Your task to perform on an android device: open app "Venmo" (install if not already installed), go to login, and select forgot password Image 0: 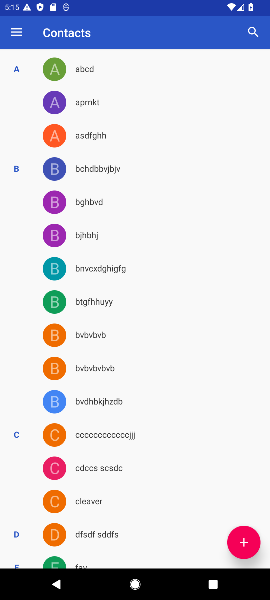
Step 0: press home button
Your task to perform on an android device: open app "Venmo" (install if not already installed), go to login, and select forgot password Image 1: 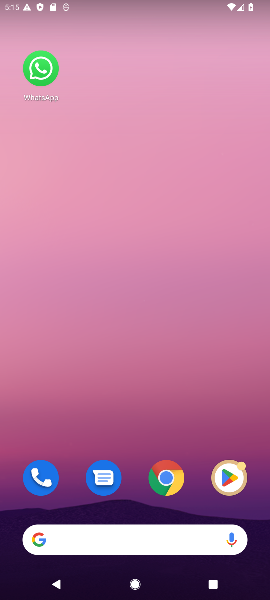
Step 1: drag from (122, 436) to (165, 2)
Your task to perform on an android device: open app "Venmo" (install if not already installed), go to login, and select forgot password Image 2: 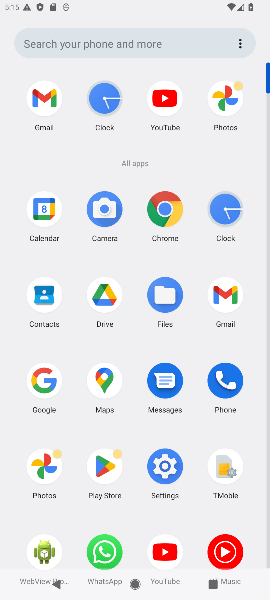
Step 2: click (107, 466)
Your task to perform on an android device: open app "Venmo" (install if not already installed), go to login, and select forgot password Image 3: 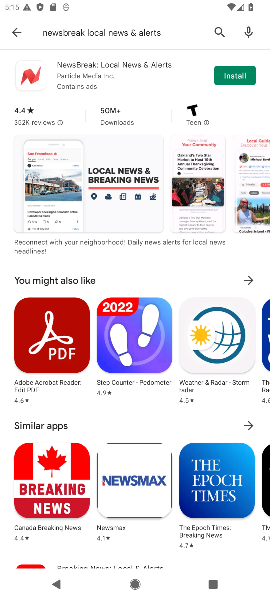
Step 3: click (218, 31)
Your task to perform on an android device: open app "Venmo" (install if not already installed), go to login, and select forgot password Image 4: 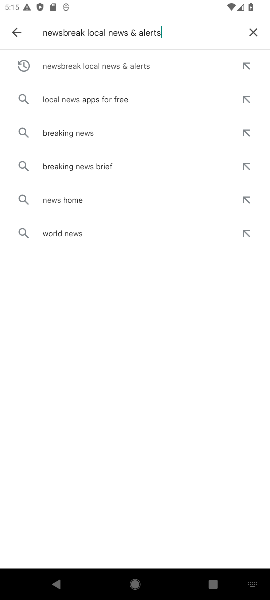
Step 4: click (253, 29)
Your task to perform on an android device: open app "Venmo" (install if not already installed), go to login, and select forgot password Image 5: 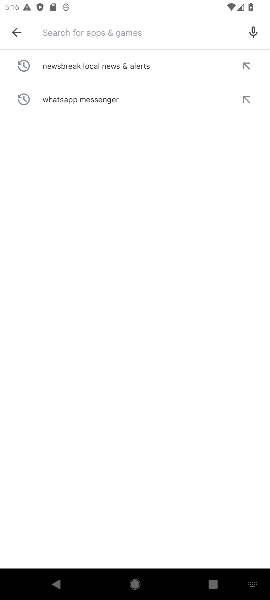
Step 5: type "venmo"
Your task to perform on an android device: open app "Venmo" (install if not already installed), go to login, and select forgot password Image 6: 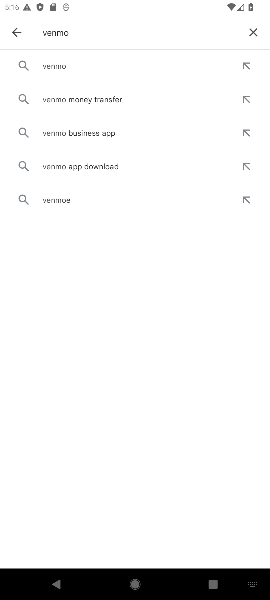
Step 6: click (91, 69)
Your task to perform on an android device: open app "Venmo" (install if not already installed), go to login, and select forgot password Image 7: 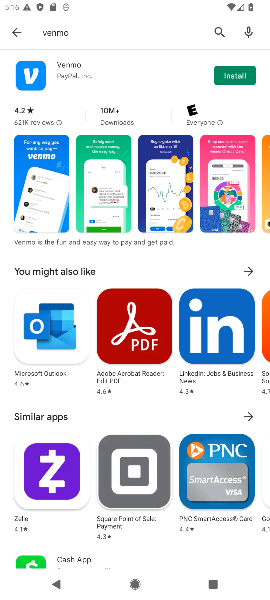
Step 7: click (230, 73)
Your task to perform on an android device: open app "Venmo" (install if not already installed), go to login, and select forgot password Image 8: 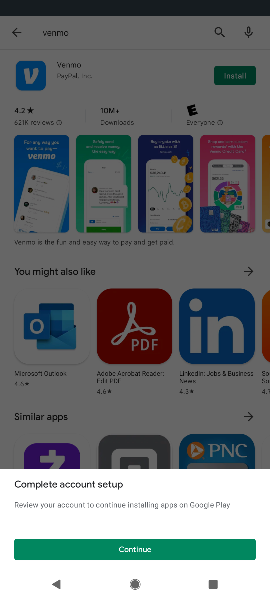
Step 8: click (176, 556)
Your task to perform on an android device: open app "Venmo" (install if not already installed), go to login, and select forgot password Image 9: 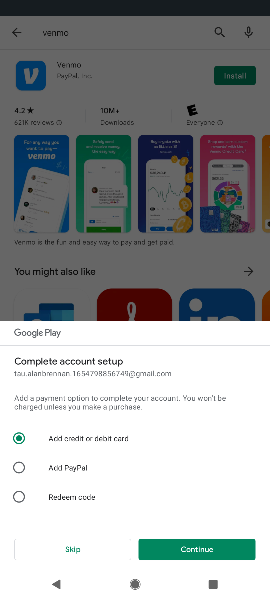
Step 9: click (73, 549)
Your task to perform on an android device: open app "Venmo" (install if not already installed), go to login, and select forgot password Image 10: 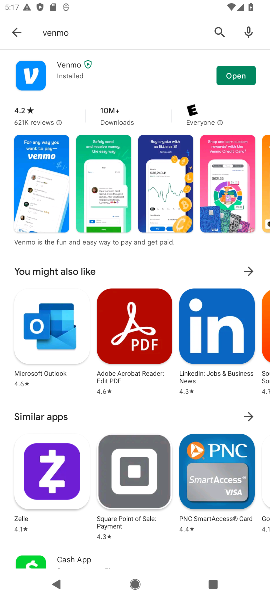
Step 10: click (234, 75)
Your task to perform on an android device: open app "Venmo" (install if not already installed), go to login, and select forgot password Image 11: 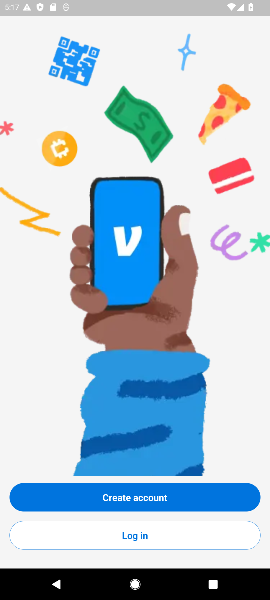
Step 11: task complete